Your task to perform on an android device: toggle translation in the chrome app Image 0: 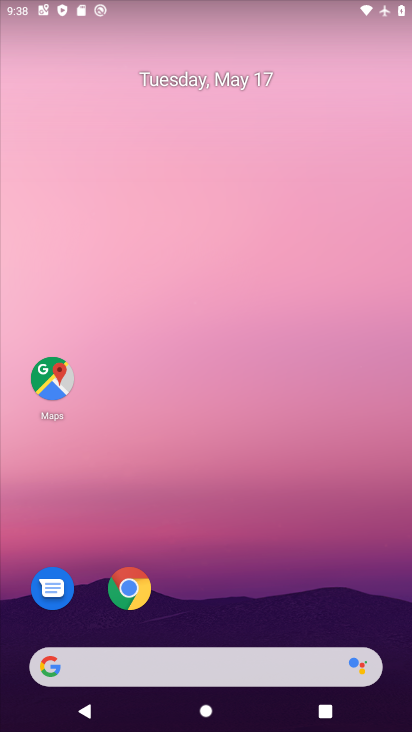
Step 0: drag from (248, 642) to (250, 101)
Your task to perform on an android device: toggle translation in the chrome app Image 1: 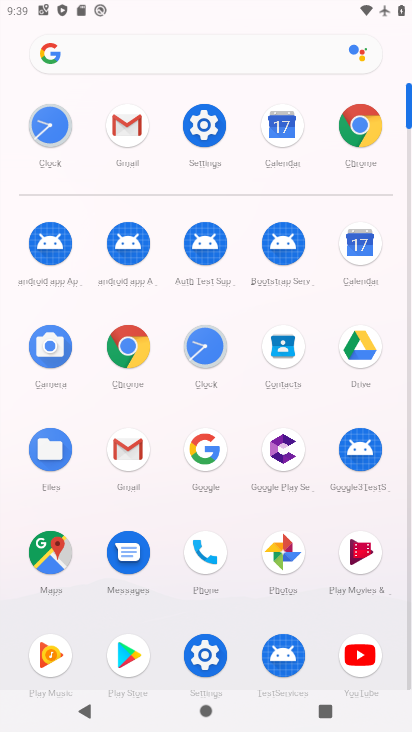
Step 1: click (355, 138)
Your task to perform on an android device: toggle translation in the chrome app Image 2: 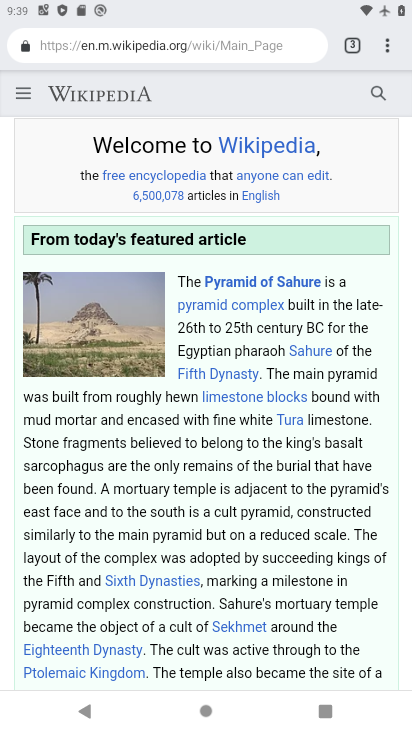
Step 2: click (382, 40)
Your task to perform on an android device: toggle translation in the chrome app Image 3: 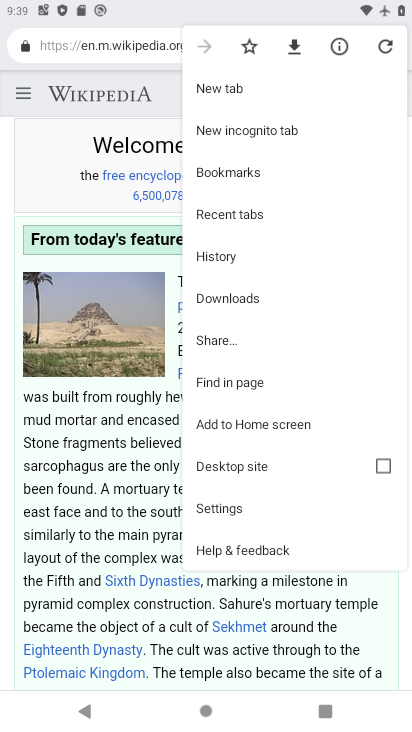
Step 3: click (249, 504)
Your task to perform on an android device: toggle translation in the chrome app Image 4: 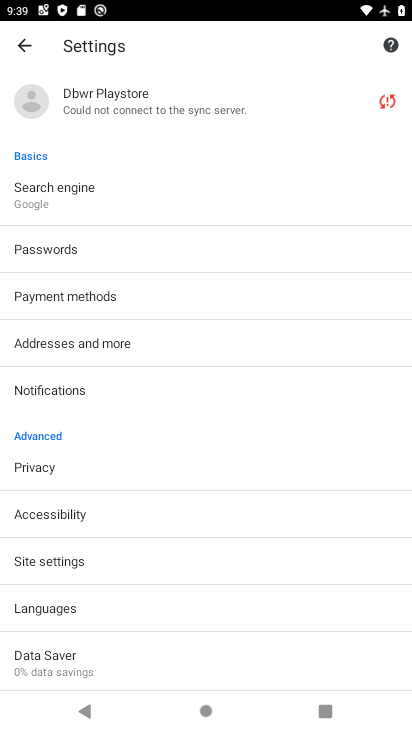
Step 4: drag from (206, 557) to (155, 249)
Your task to perform on an android device: toggle translation in the chrome app Image 5: 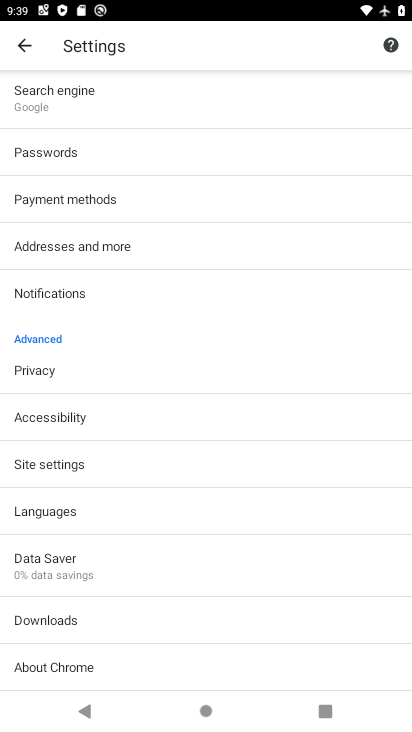
Step 5: click (68, 520)
Your task to perform on an android device: toggle translation in the chrome app Image 6: 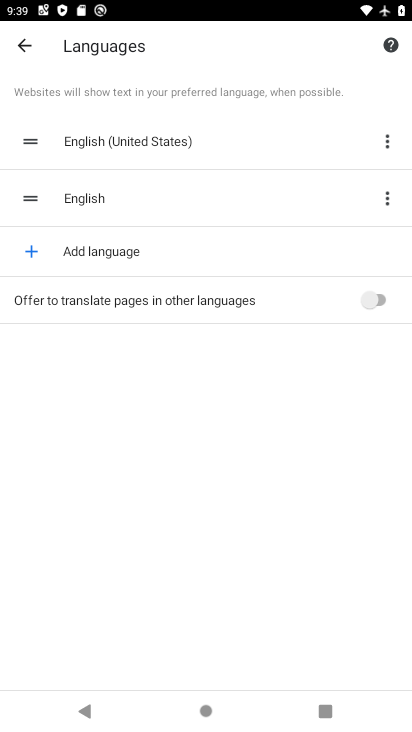
Step 6: click (365, 297)
Your task to perform on an android device: toggle translation in the chrome app Image 7: 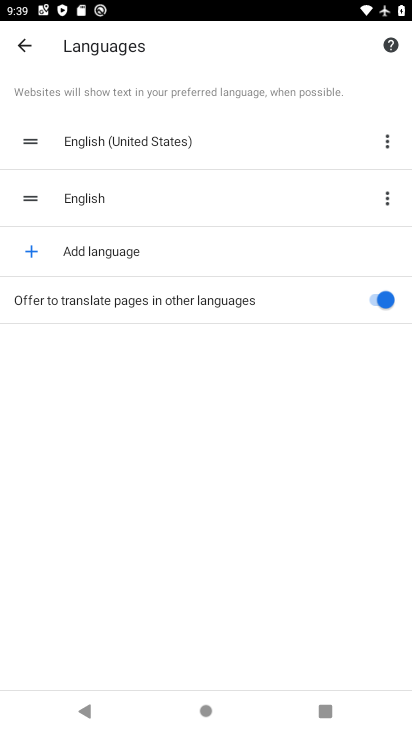
Step 7: task complete